Your task to perform on an android device: manage bookmarks in the chrome app Image 0: 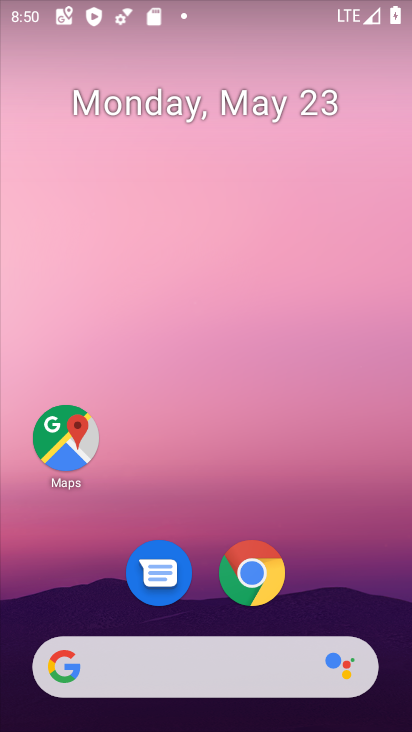
Step 0: click (265, 567)
Your task to perform on an android device: manage bookmarks in the chrome app Image 1: 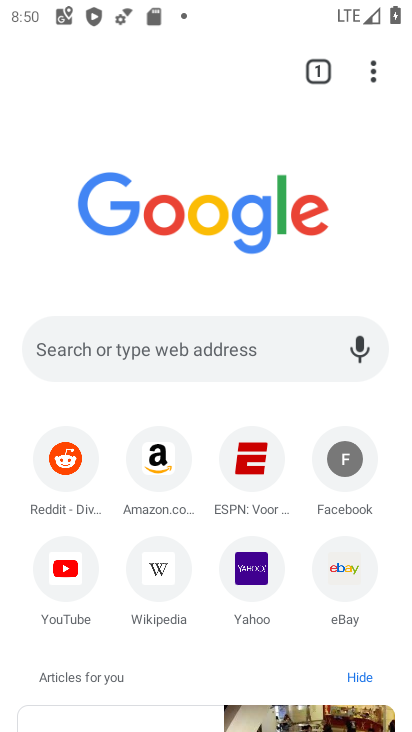
Step 1: click (368, 74)
Your task to perform on an android device: manage bookmarks in the chrome app Image 2: 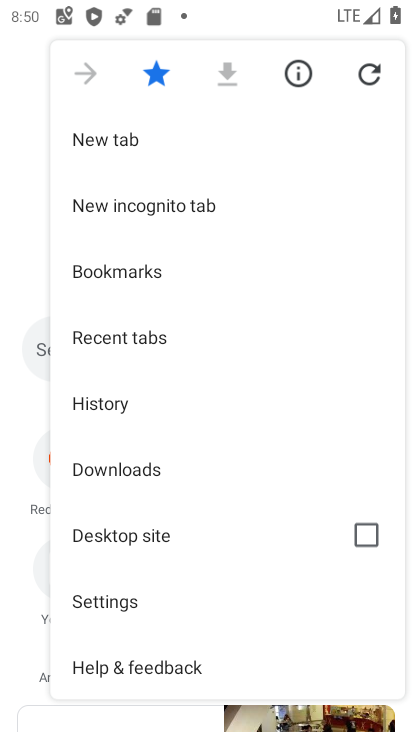
Step 2: click (153, 267)
Your task to perform on an android device: manage bookmarks in the chrome app Image 3: 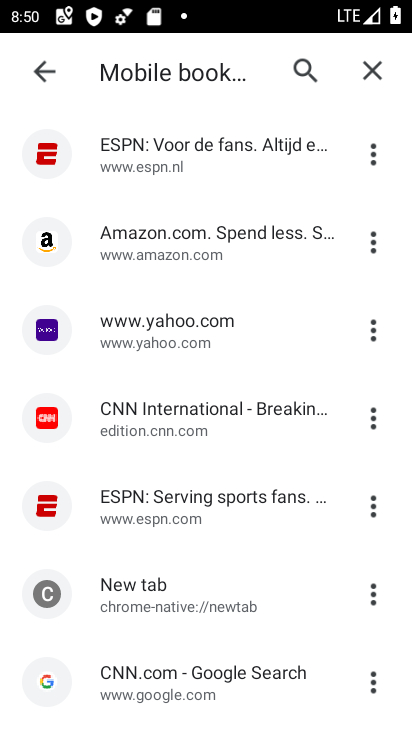
Step 3: click (370, 235)
Your task to perform on an android device: manage bookmarks in the chrome app Image 4: 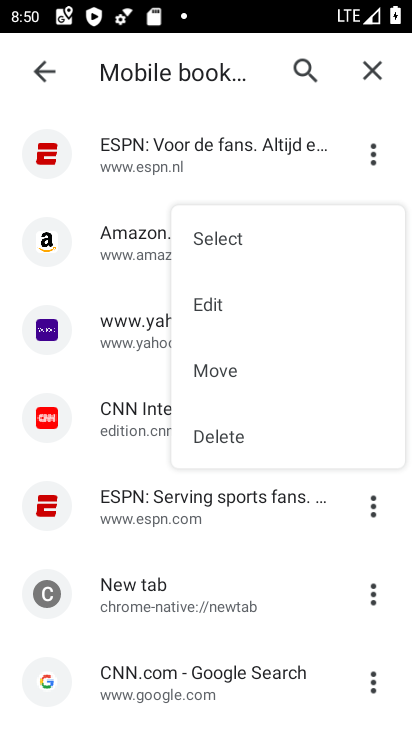
Step 4: click (227, 299)
Your task to perform on an android device: manage bookmarks in the chrome app Image 5: 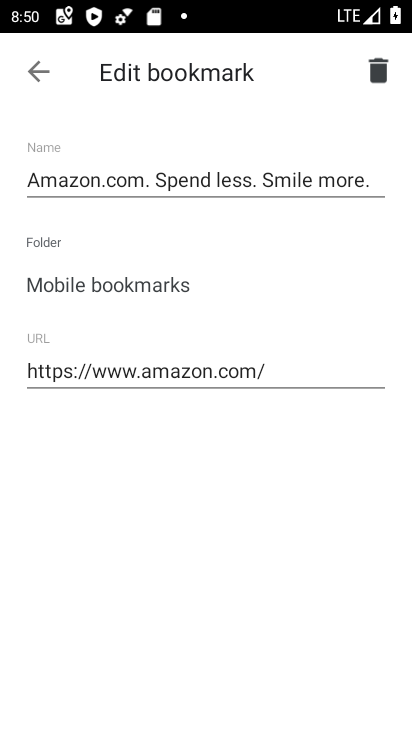
Step 5: click (36, 64)
Your task to perform on an android device: manage bookmarks in the chrome app Image 6: 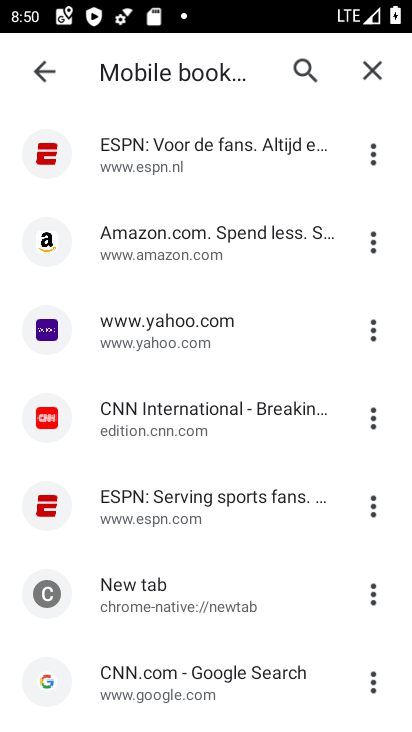
Step 6: task complete